Your task to perform on an android device: Open Maps and search for coffee Image 0: 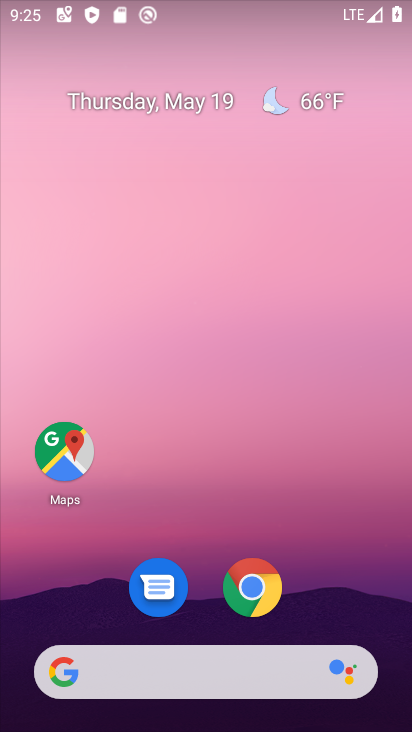
Step 0: drag from (219, 646) to (221, 296)
Your task to perform on an android device: Open Maps and search for coffee Image 1: 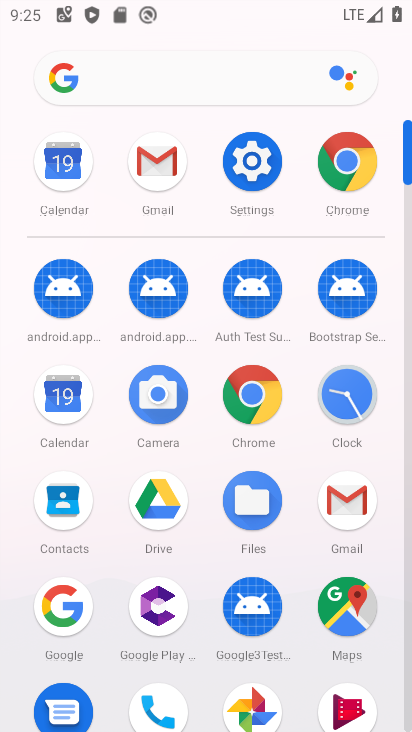
Step 1: click (340, 589)
Your task to perform on an android device: Open Maps and search for coffee Image 2: 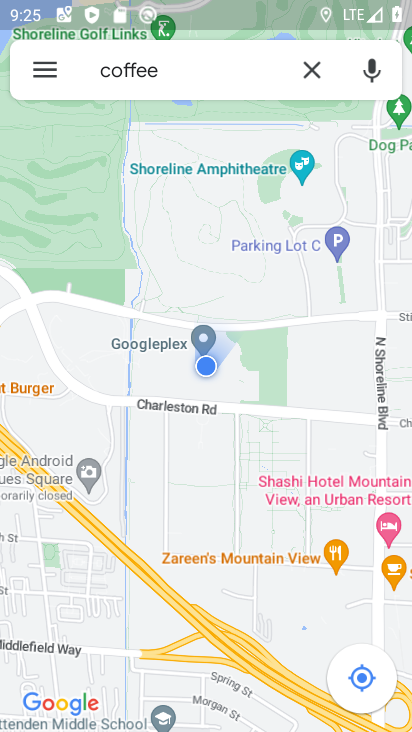
Step 2: click (224, 82)
Your task to perform on an android device: Open Maps and search for coffee Image 3: 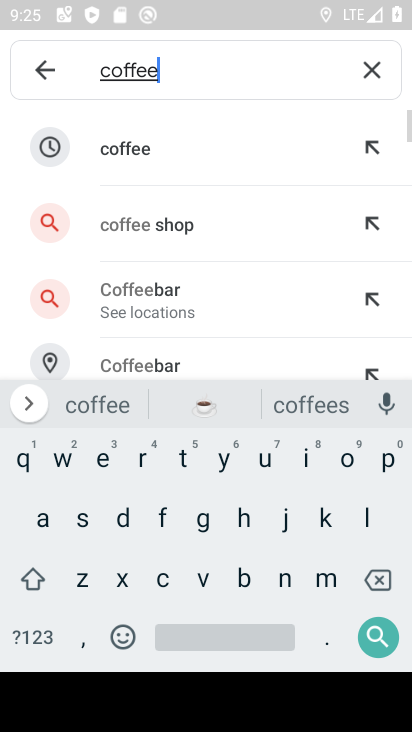
Step 3: click (381, 643)
Your task to perform on an android device: Open Maps and search for coffee Image 4: 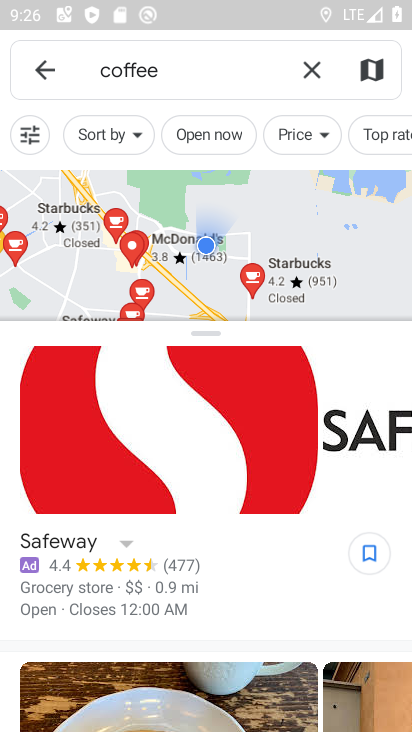
Step 4: click (93, 292)
Your task to perform on an android device: Open Maps and search for coffee Image 5: 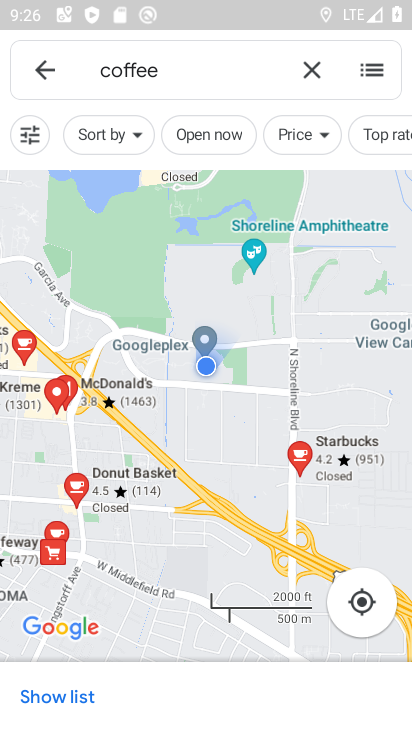
Step 5: task complete